Your task to perform on an android device: Open Google Maps Image 0: 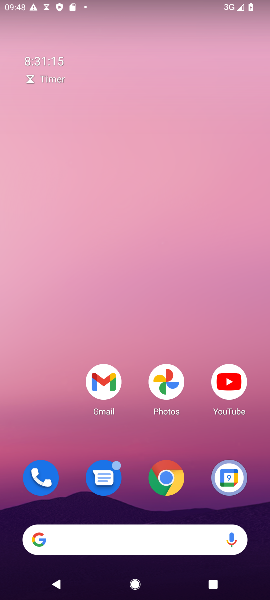
Step 0: drag from (199, 440) to (145, 123)
Your task to perform on an android device: Open Google Maps Image 1: 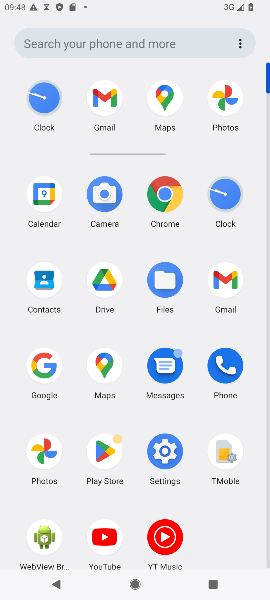
Step 1: click (105, 379)
Your task to perform on an android device: Open Google Maps Image 2: 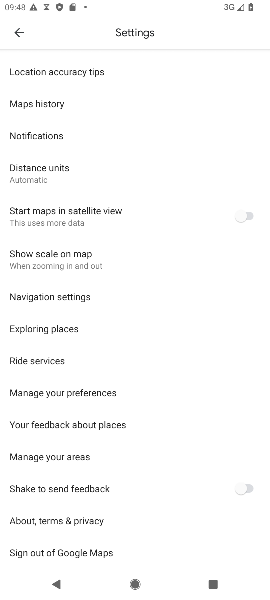
Step 2: click (18, 36)
Your task to perform on an android device: Open Google Maps Image 3: 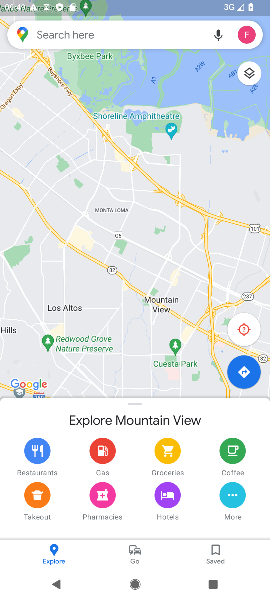
Step 3: task complete